Your task to perform on an android device: Open Wikipedia Image 0: 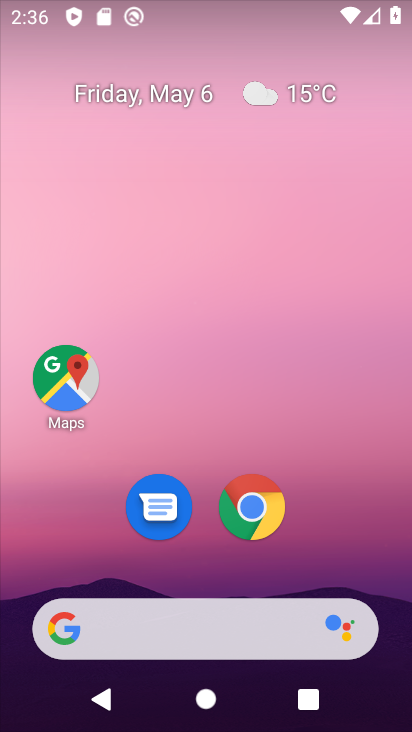
Step 0: drag from (340, 534) to (368, 130)
Your task to perform on an android device: Open Wikipedia Image 1: 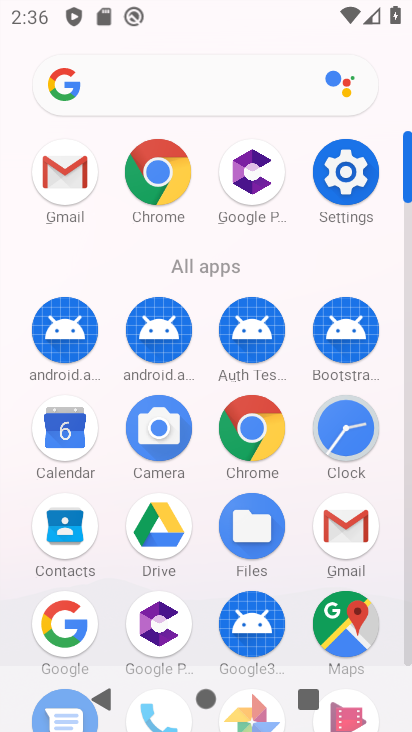
Step 1: click (134, 173)
Your task to perform on an android device: Open Wikipedia Image 2: 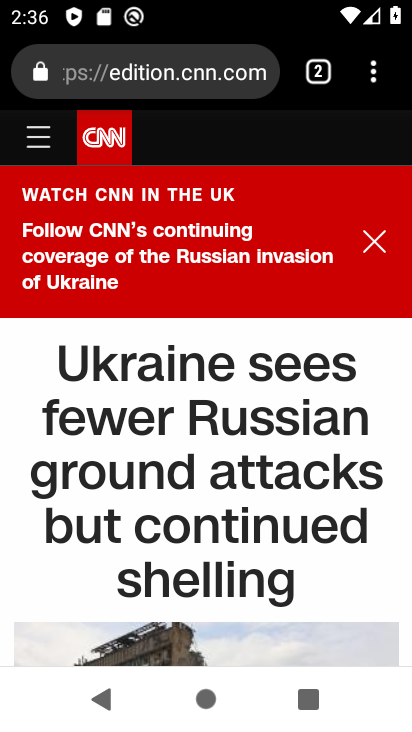
Step 2: click (135, 82)
Your task to perform on an android device: Open Wikipedia Image 3: 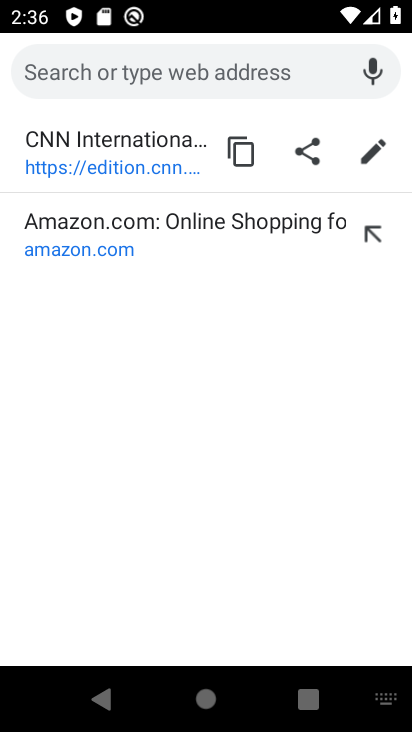
Step 3: type "wikipedia"
Your task to perform on an android device: Open Wikipedia Image 4: 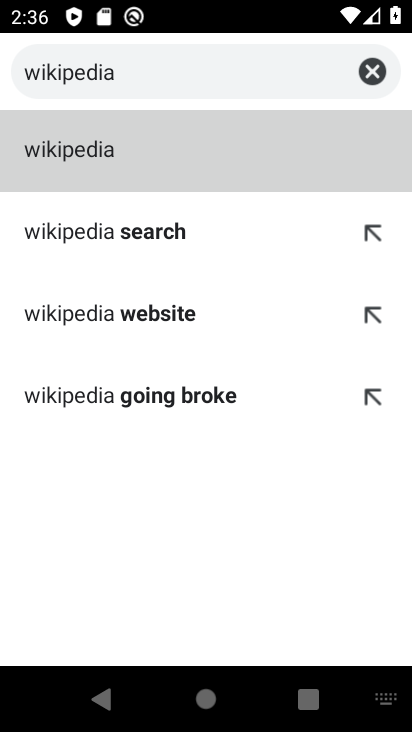
Step 4: click (96, 162)
Your task to perform on an android device: Open Wikipedia Image 5: 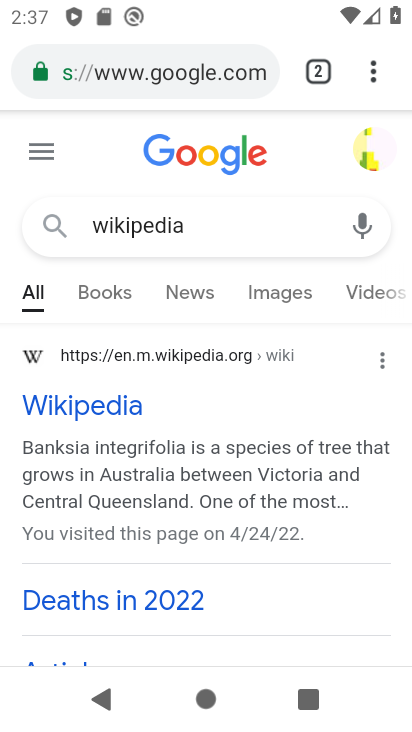
Step 5: click (73, 412)
Your task to perform on an android device: Open Wikipedia Image 6: 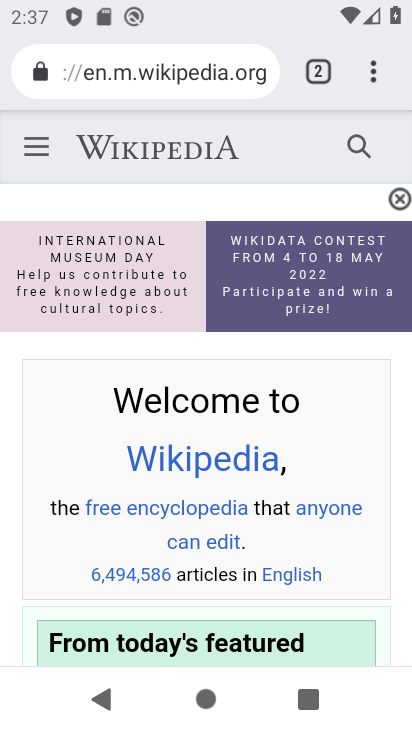
Step 6: task complete